Your task to perform on an android device: open app "Facebook" (install if not already installed) and enter user name: "resultants@gmail.com" and password: "earned" Image 0: 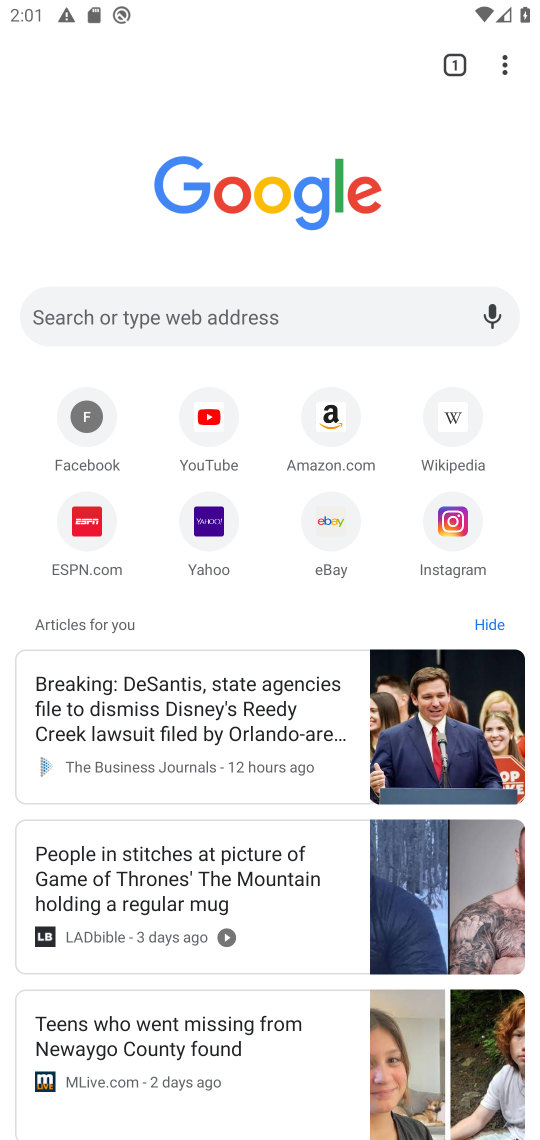
Step 0: task complete